Your task to perform on an android device: Find coffee shops on Maps Image 0: 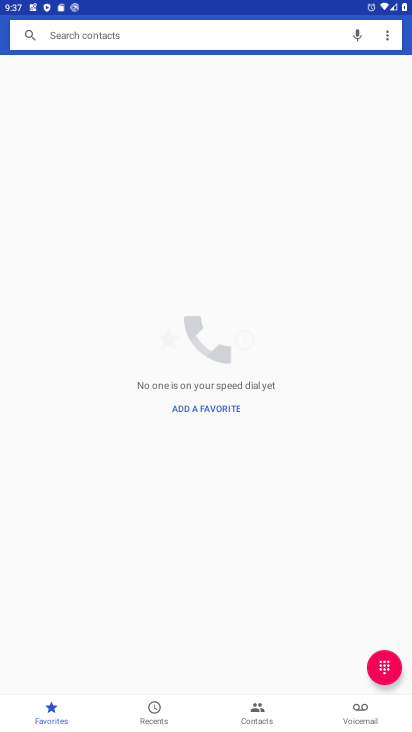
Step 0: press home button
Your task to perform on an android device: Find coffee shops on Maps Image 1: 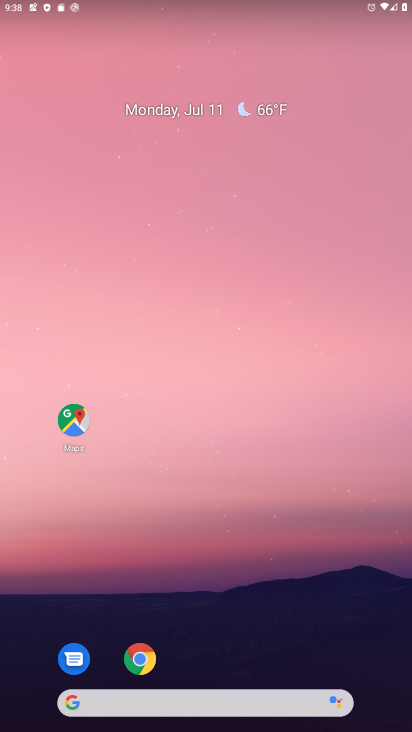
Step 1: drag from (334, 646) to (340, 178)
Your task to perform on an android device: Find coffee shops on Maps Image 2: 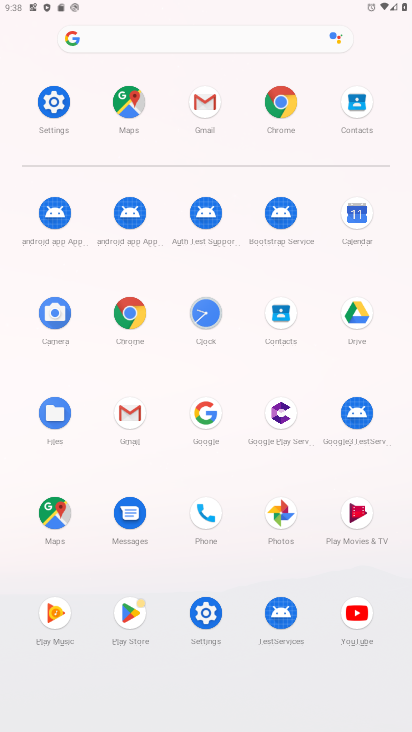
Step 2: click (63, 513)
Your task to perform on an android device: Find coffee shops on Maps Image 3: 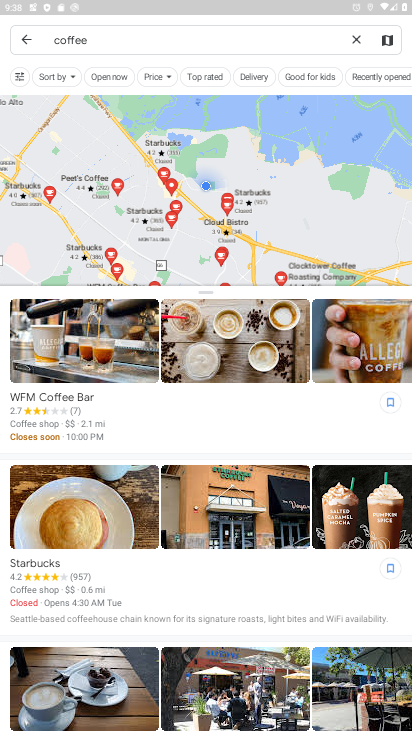
Step 3: task complete